Your task to perform on an android device: Open calendar and show me the first week of next month Image 0: 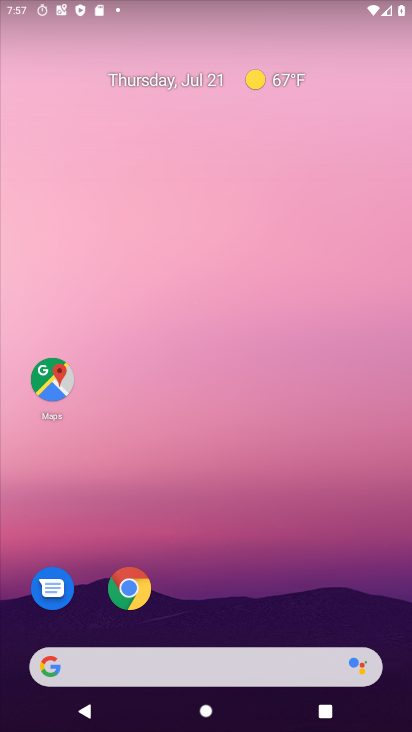
Step 0: drag from (209, 654) to (279, 91)
Your task to perform on an android device: Open calendar and show me the first week of next month Image 1: 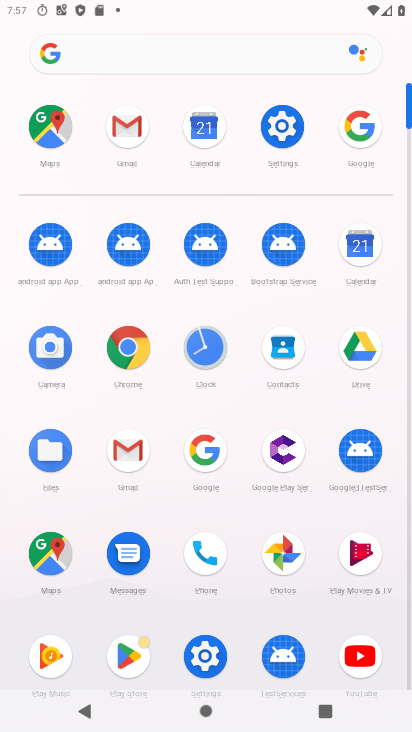
Step 1: click (363, 249)
Your task to perform on an android device: Open calendar and show me the first week of next month Image 2: 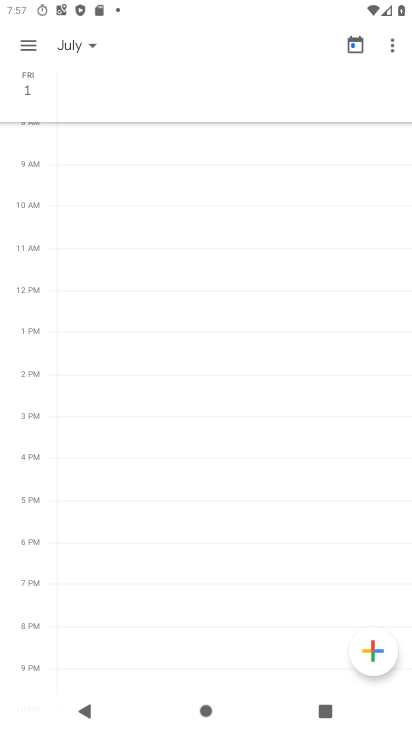
Step 2: click (99, 34)
Your task to perform on an android device: Open calendar and show me the first week of next month Image 3: 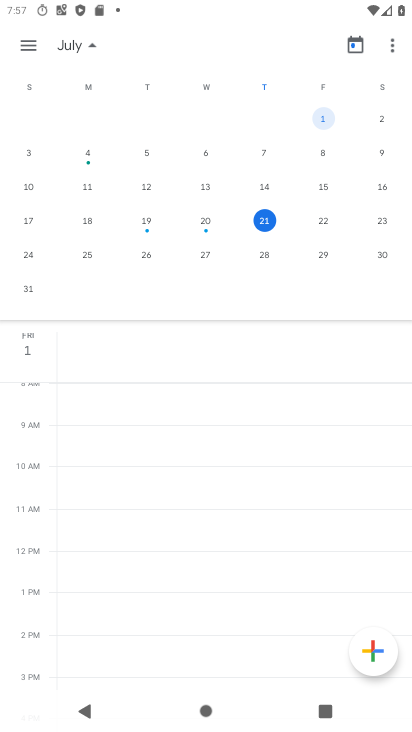
Step 3: drag from (355, 208) to (5, 162)
Your task to perform on an android device: Open calendar and show me the first week of next month Image 4: 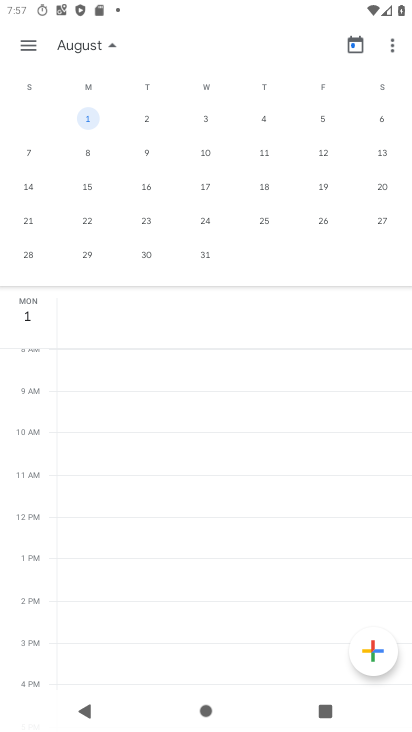
Step 4: click (152, 88)
Your task to perform on an android device: Open calendar and show me the first week of next month Image 5: 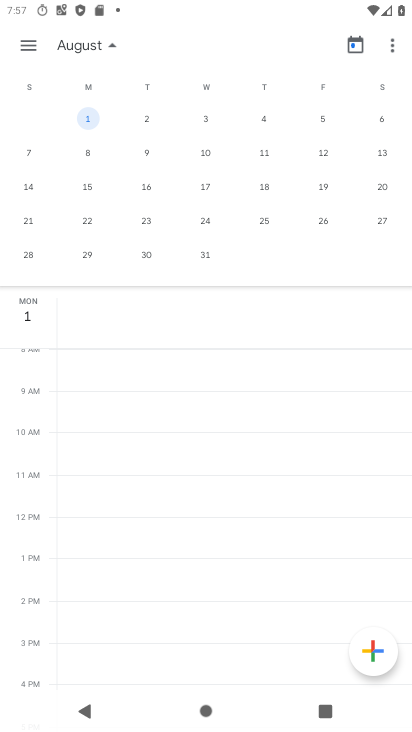
Step 5: click (151, 84)
Your task to perform on an android device: Open calendar and show me the first week of next month Image 6: 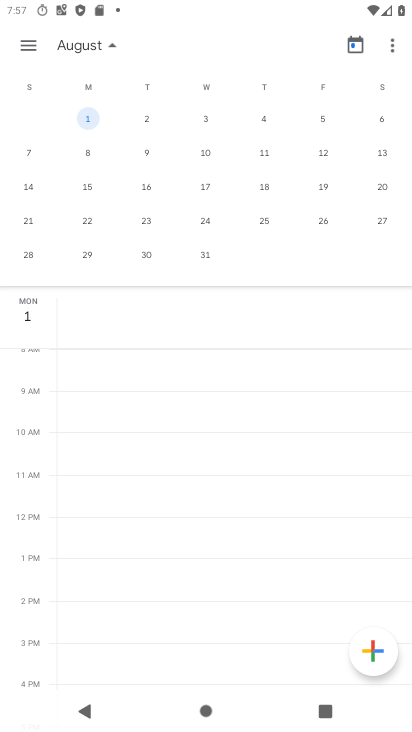
Step 6: click (89, 121)
Your task to perform on an android device: Open calendar and show me the first week of next month Image 7: 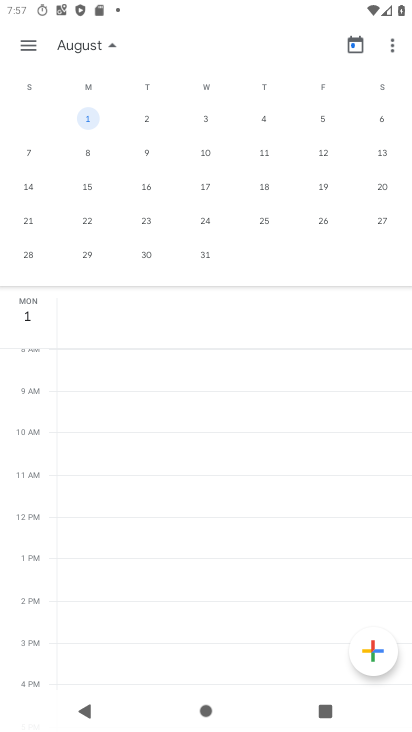
Step 7: task complete